Your task to perform on an android device: manage bookmarks in the chrome app Image 0: 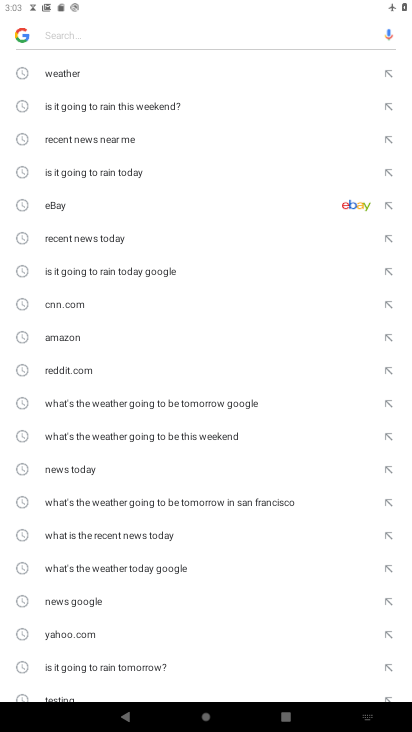
Step 0: press home button
Your task to perform on an android device: manage bookmarks in the chrome app Image 1: 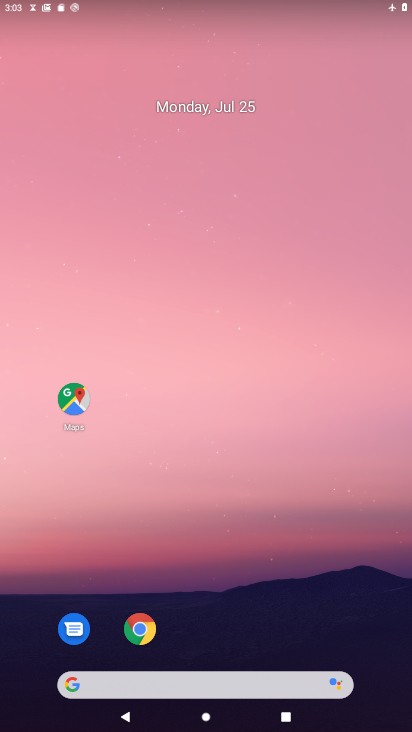
Step 1: drag from (294, 633) to (153, 118)
Your task to perform on an android device: manage bookmarks in the chrome app Image 2: 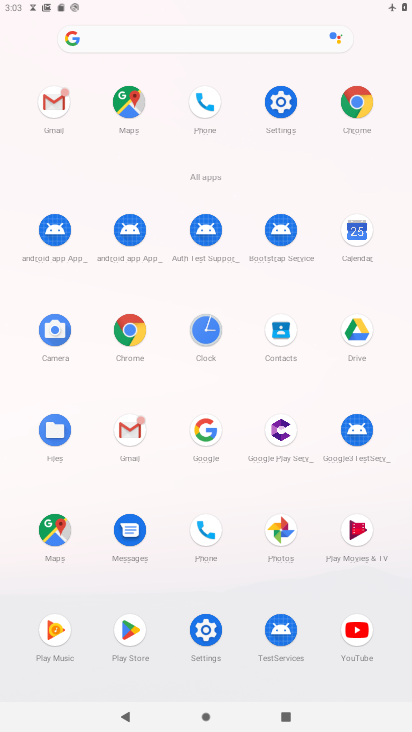
Step 2: click (351, 113)
Your task to perform on an android device: manage bookmarks in the chrome app Image 3: 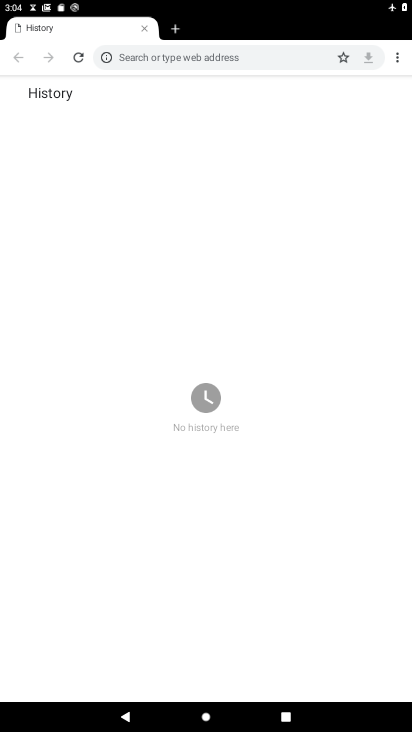
Step 3: click (403, 66)
Your task to perform on an android device: manage bookmarks in the chrome app Image 4: 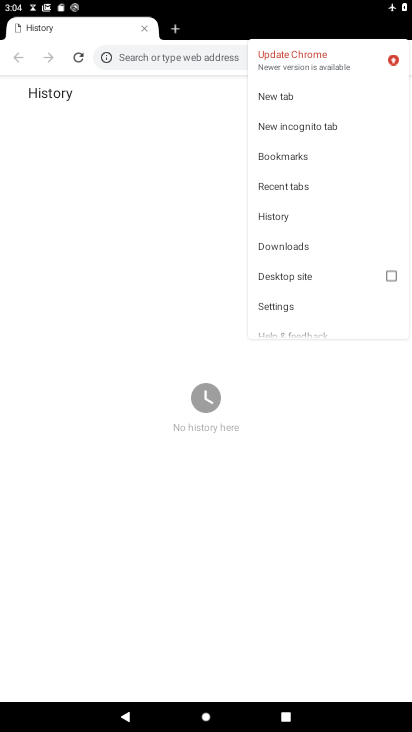
Step 4: click (314, 161)
Your task to perform on an android device: manage bookmarks in the chrome app Image 5: 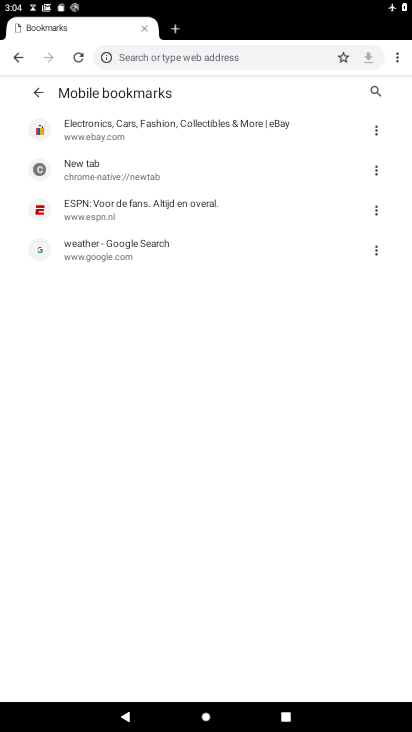
Step 5: click (242, 133)
Your task to perform on an android device: manage bookmarks in the chrome app Image 6: 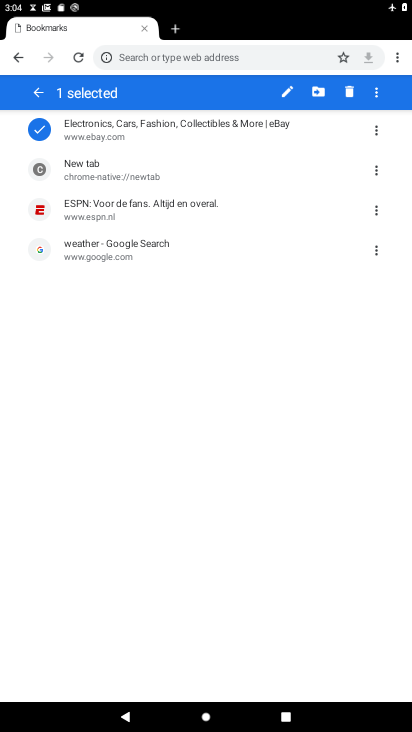
Step 6: click (314, 97)
Your task to perform on an android device: manage bookmarks in the chrome app Image 7: 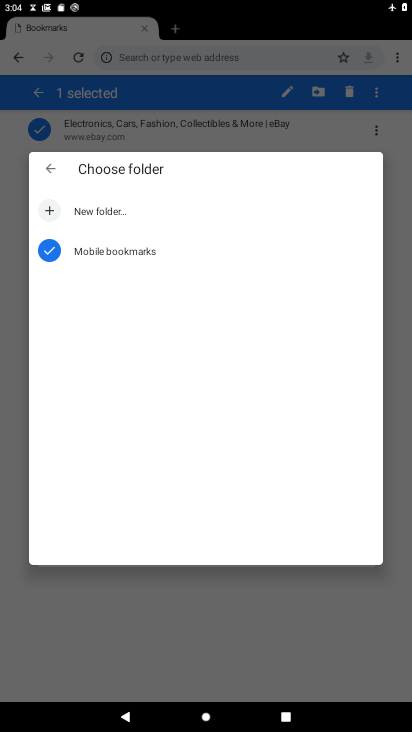
Step 7: click (164, 255)
Your task to perform on an android device: manage bookmarks in the chrome app Image 8: 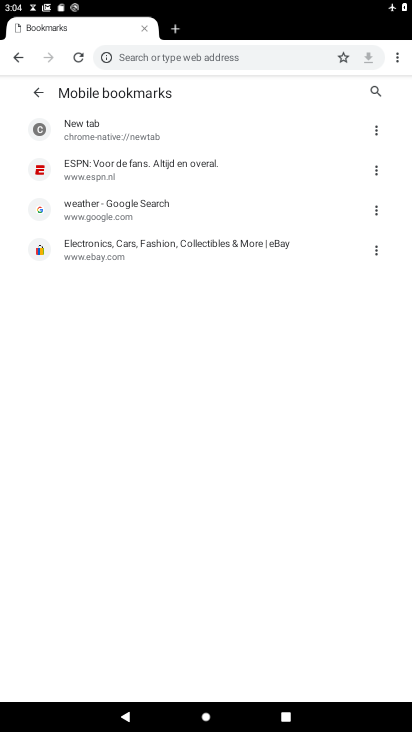
Step 8: task complete